Your task to perform on an android device: Go to network settings Image 0: 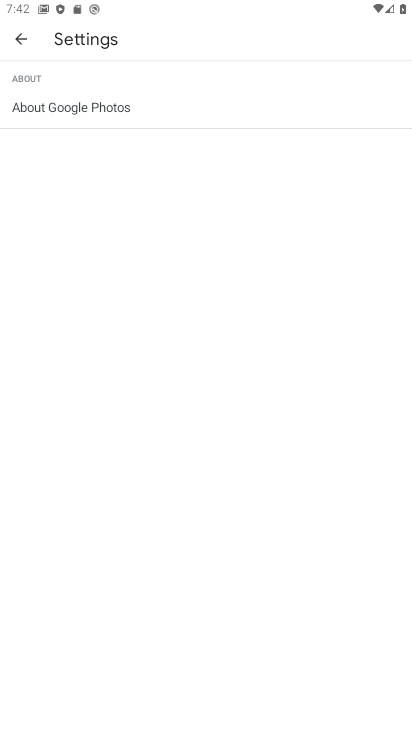
Step 0: press home button
Your task to perform on an android device: Go to network settings Image 1: 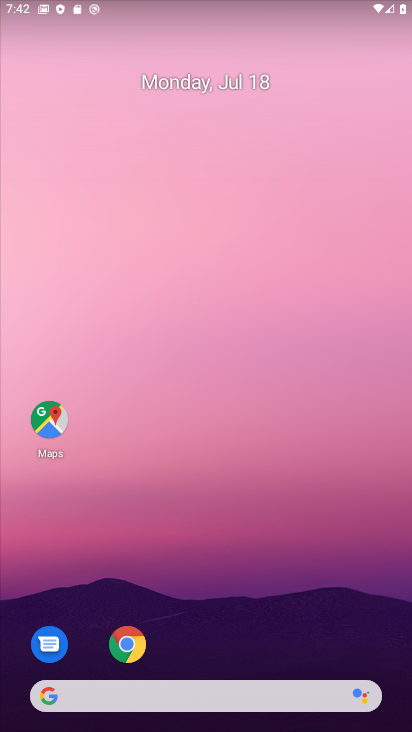
Step 1: drag from (251, 594) to (209, 210)
Your task to perform on an android device: Go to network settings Image 2: 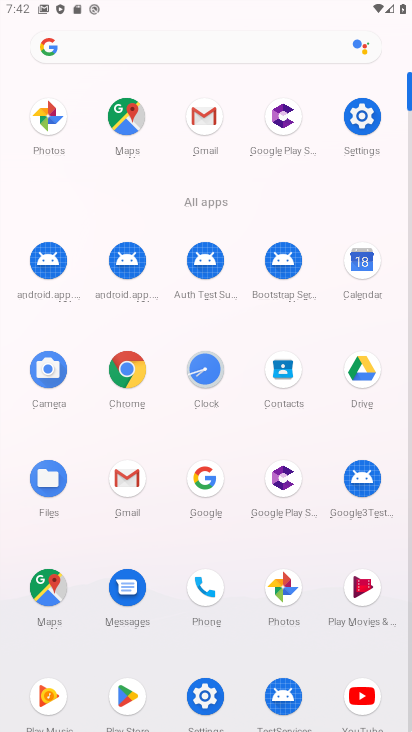
Step 2: click (202, 691)
Your task to perform on an android device: Go to network settings Image 3: 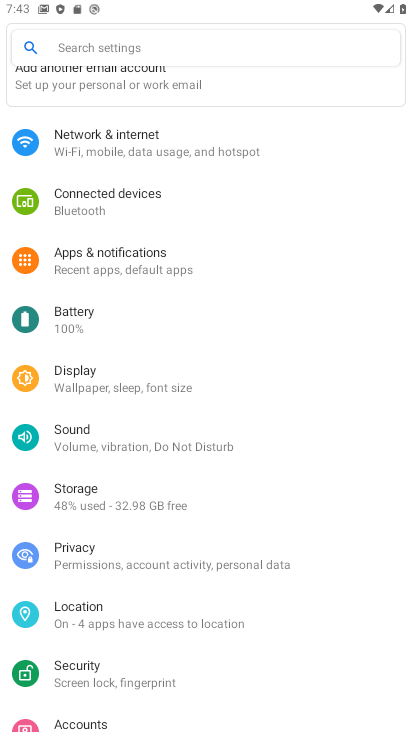
Step 3: click (112, 130)
Your task to perform on an android device: Go to network settings Image 4: 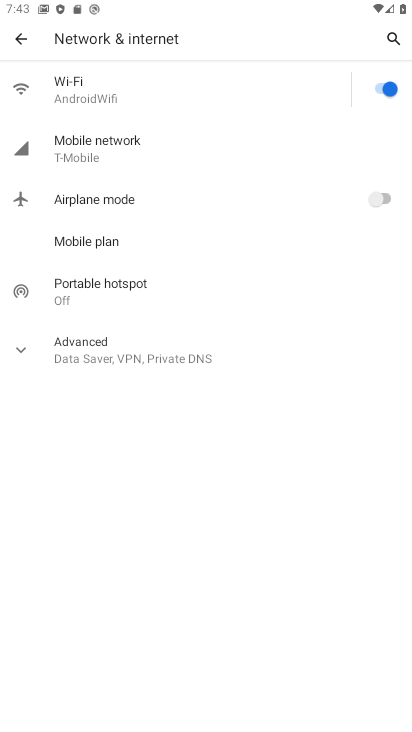
Step 4: task complete